Your task to perform on an android device: turn on bluetooth scan Image 0: 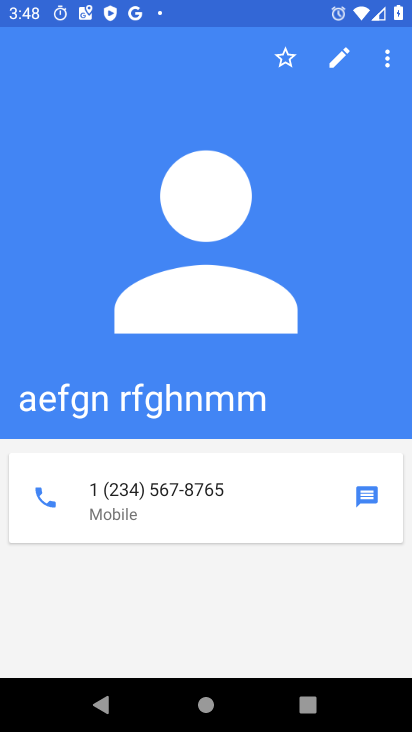
Step 0: press home button
Your task to perform on an android device: turn on bluetooth scan Image 1: 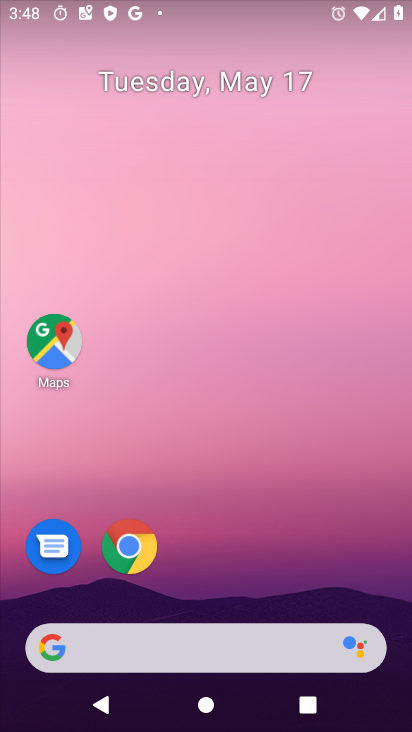
Step 1: click (354, 359)
Your task to perform on an android device: turn on bluetooth scan Image 2: 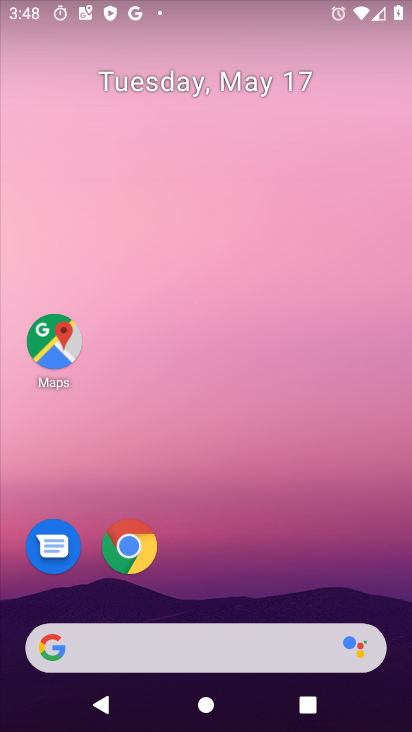
Step 2: drag from (396, 586) to (375, 402)
Your task to perform on an android device: turn on bluetooth scan Image 3: 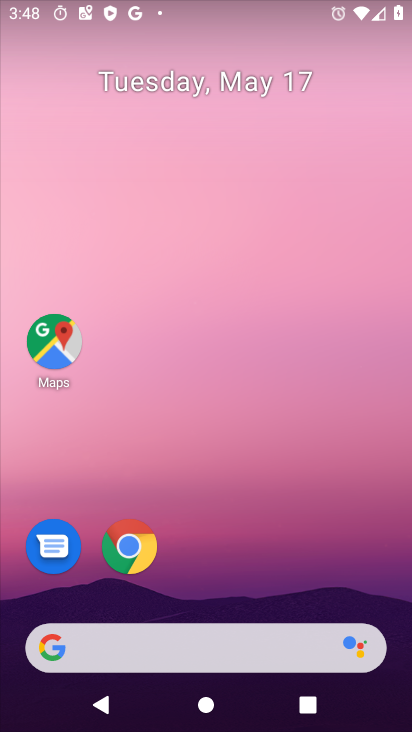
Step 3: drag from (399, 672) to (383, 338)
Your task to perform on an android device: turn on bluetooth scan Image 4: 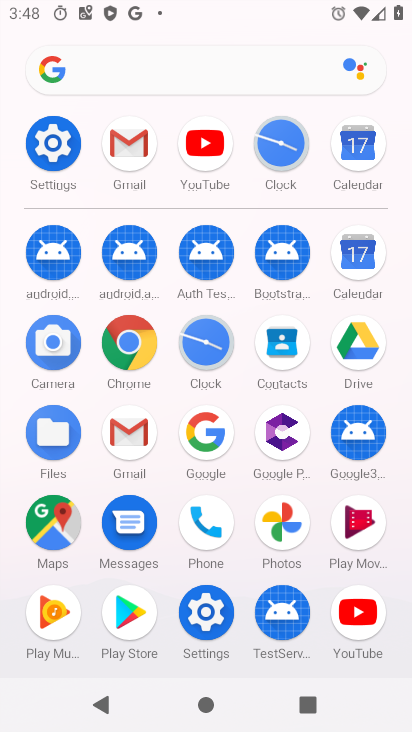
Step 4: click (215, 601)
Your task to perform on an android device: turn on bluetooth scan Image 5: 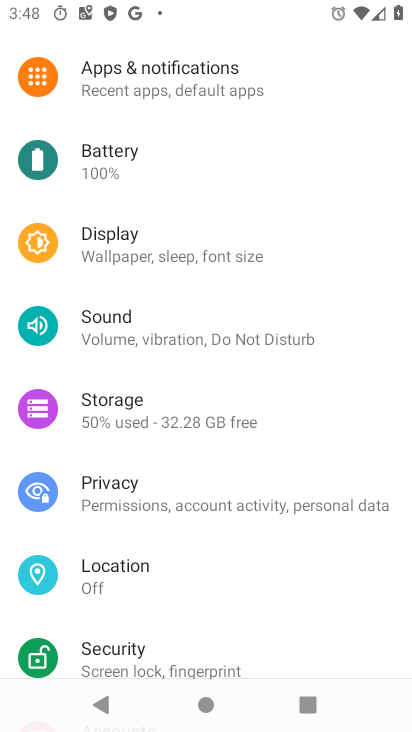
Step 5: drag from (258, 632) to (271, 398)
Your task to perform on an android device: turn on bluetooth scan Image 6: 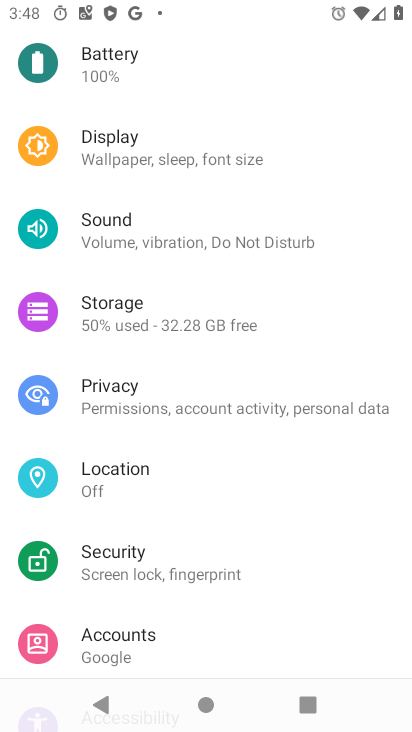
Step 6: click (112, 488)
Your task to perform on an android device: turn on bluetooth scan Image 7: 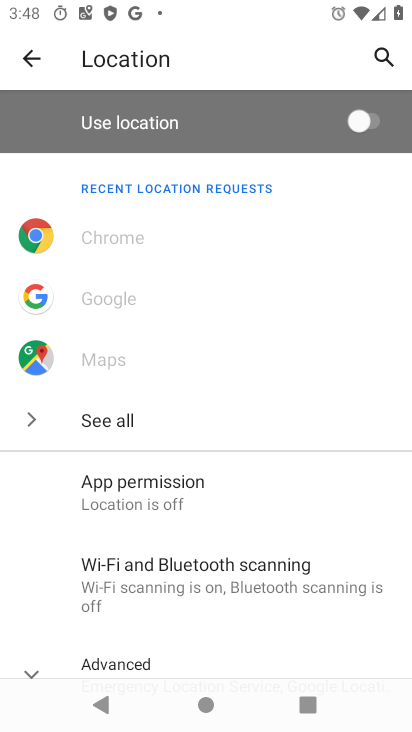
Step 7: click (142, 585)
Your task to perform on an android device: turn on bluetooth scan Image 8: 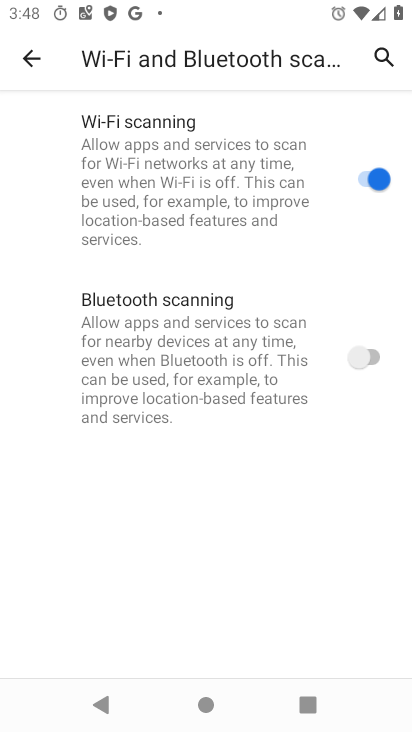
Step 8: click (371, 354)
Your task to perform on an android device: turn on bluetooth scan Image 9: 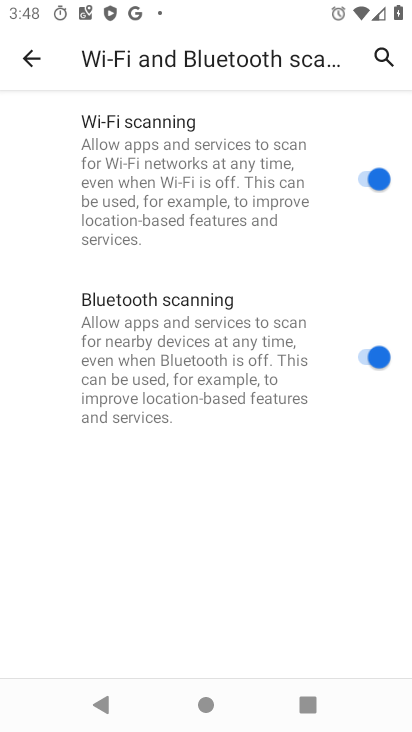
Step 9: task complete